Your task to perform on an android device: Turn on the flashlight Image 0: 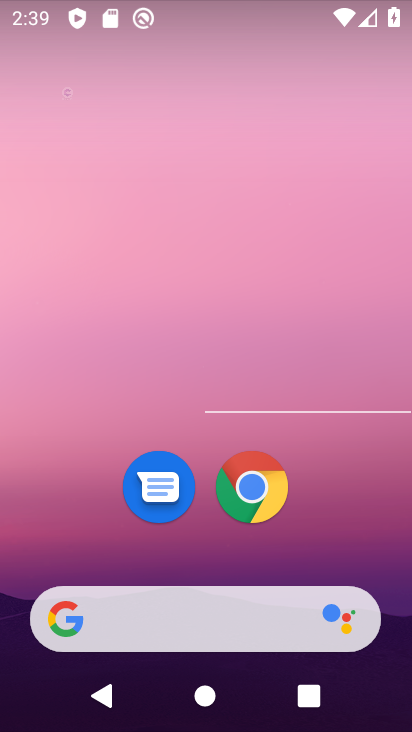
Step 0: drag from (355, 493) to (322, 112)
Your task to perform on an android device: Turn on the flashlight Image 1: 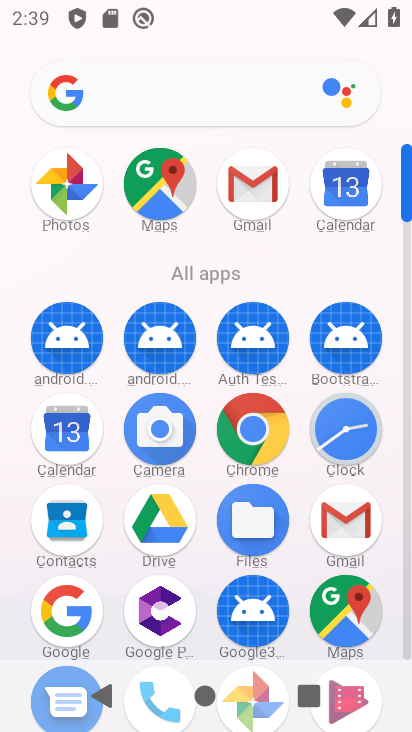
Step 1: drag from (392, 584) to (314, 152)
Your task to perform on an android device: Turn on the flashlight Image 2: 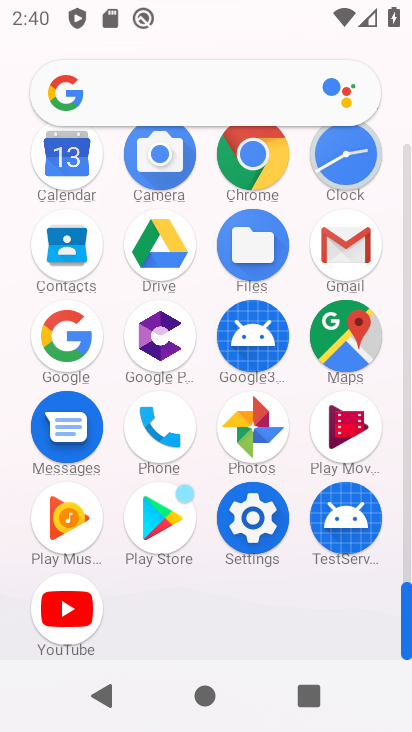
Step 2: click (246, 524)
Your task to perform on an android device: Turn on the flashlight Image 3: 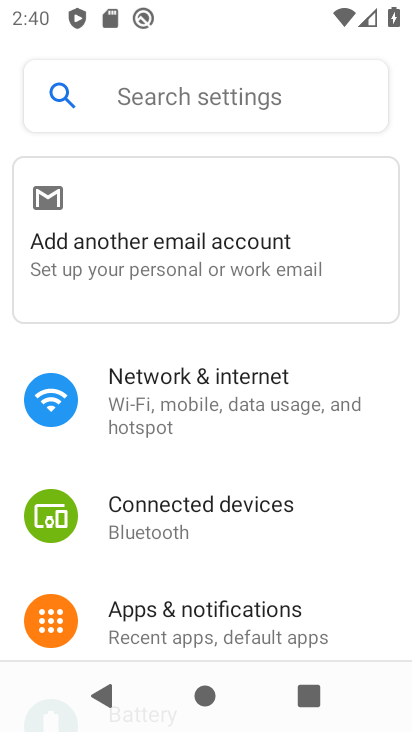
Step 3: task complete